Your task to perform on an android device: Is it going to rain this weekend? Image 0: 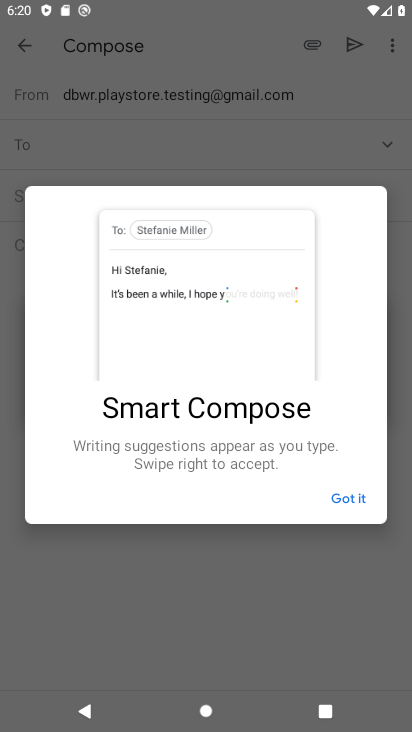
Step 0: press home button
Your task to perform on an android device: Is it going to rain this weekend? Image 1: 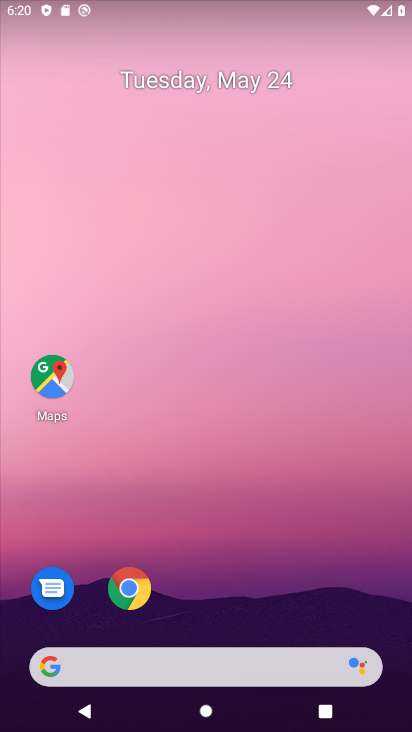
Step 1: drag from (228, 655) to (268, 675)
Your task to perform on an android device: Is it going to rain this weekend? Image 2: 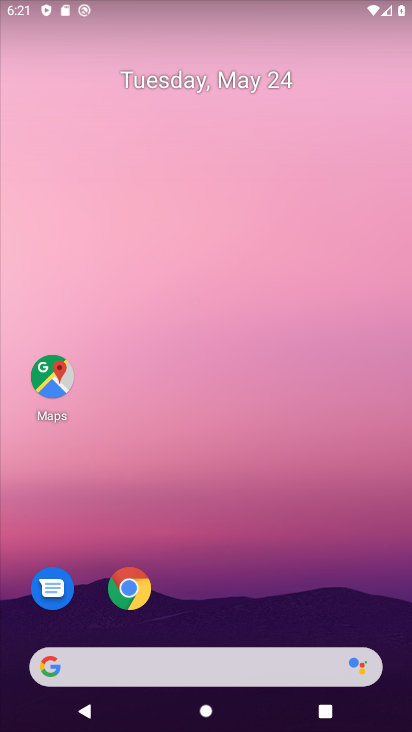
Step 2: drag from (29, 298) to (396, 301)
Your task to perform on an android device: Is it going to rain this weekend? Image 3: 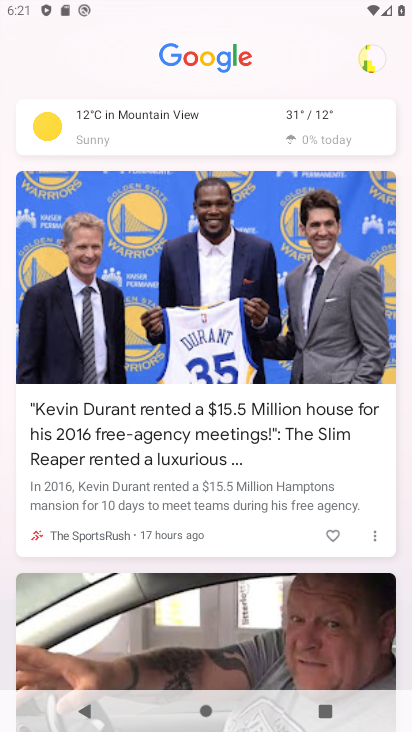
Step 3: click (270, 132)
Your task to perform on an android device: Is it going to rain this weekend? Image 4: 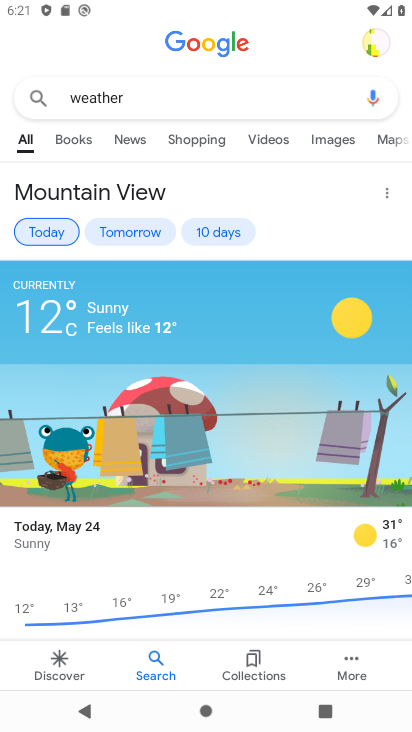
Step 4: click (245, 234)
Your task to perform on an android device: Is it going to rain this weekend? Image 5: 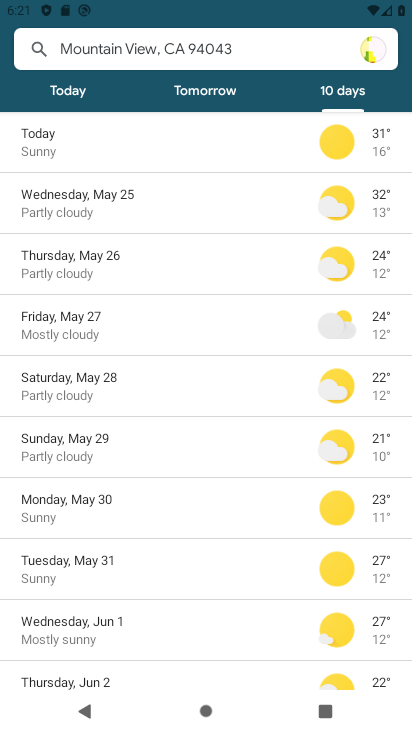
Step 5: task complete